Your task to perform on an android device: What's the weather going to be tomorrow? Image 0: 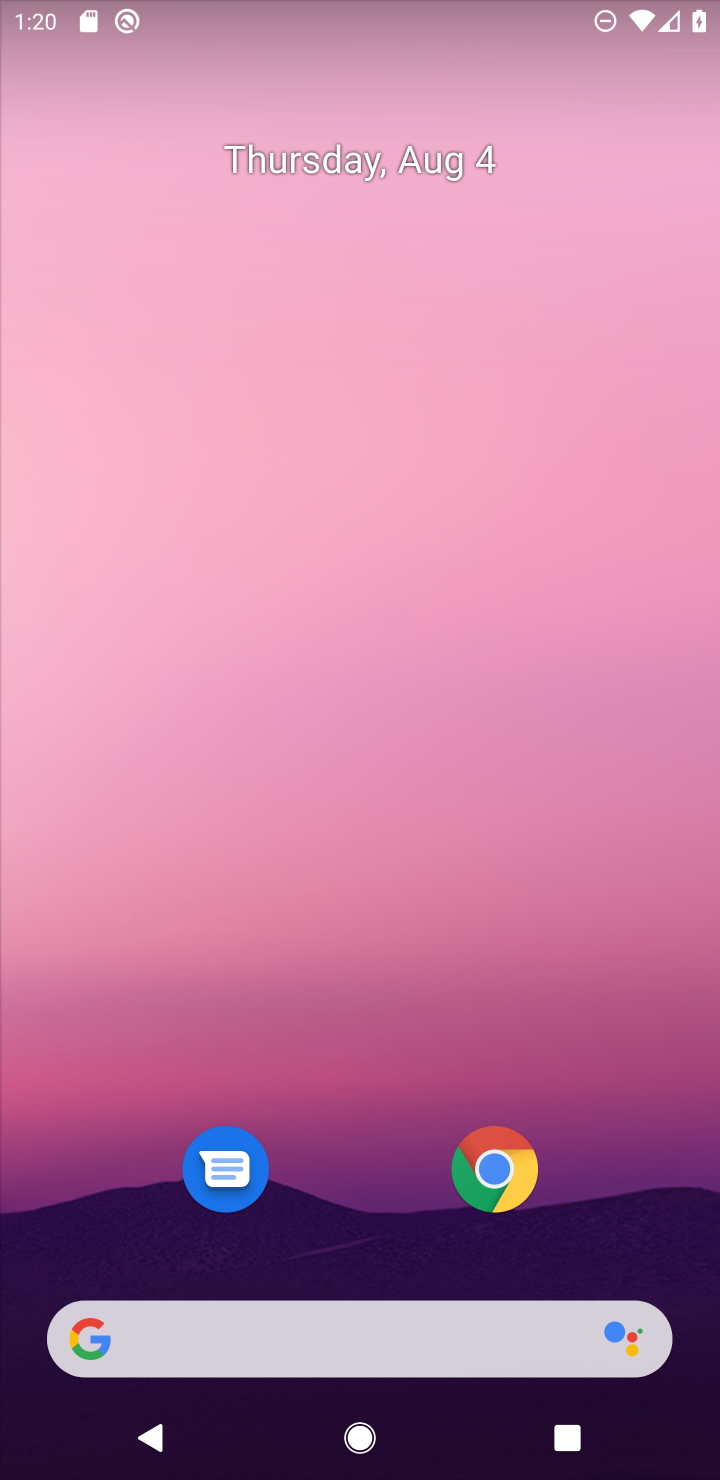
Step 0: drag from (369, 1257) to (342, 4)
Your task to perform on an android device: What's the weather going to be tomorrow? Image 1: 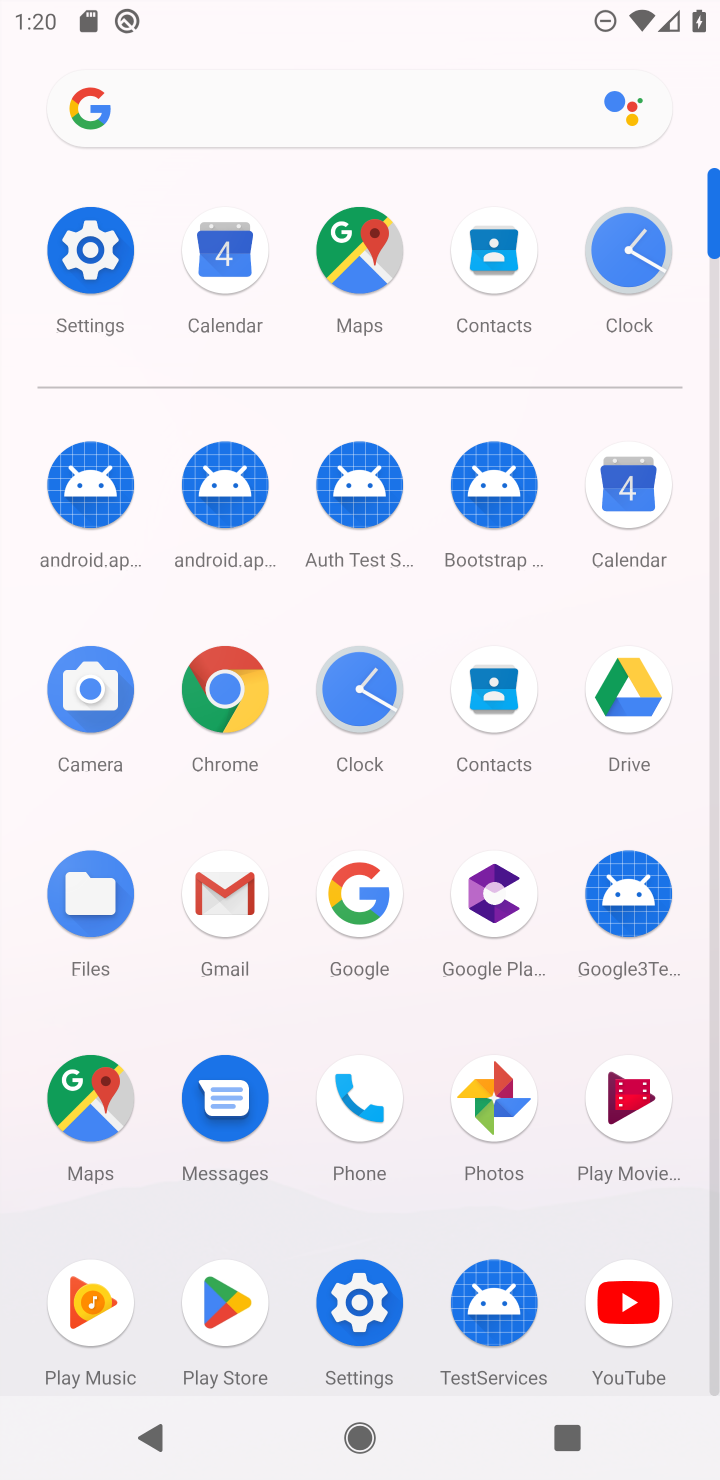
Step 1: click (236, 118)
Your task to perform on an android device: What's the weather going to be tomorrow? Image 2: 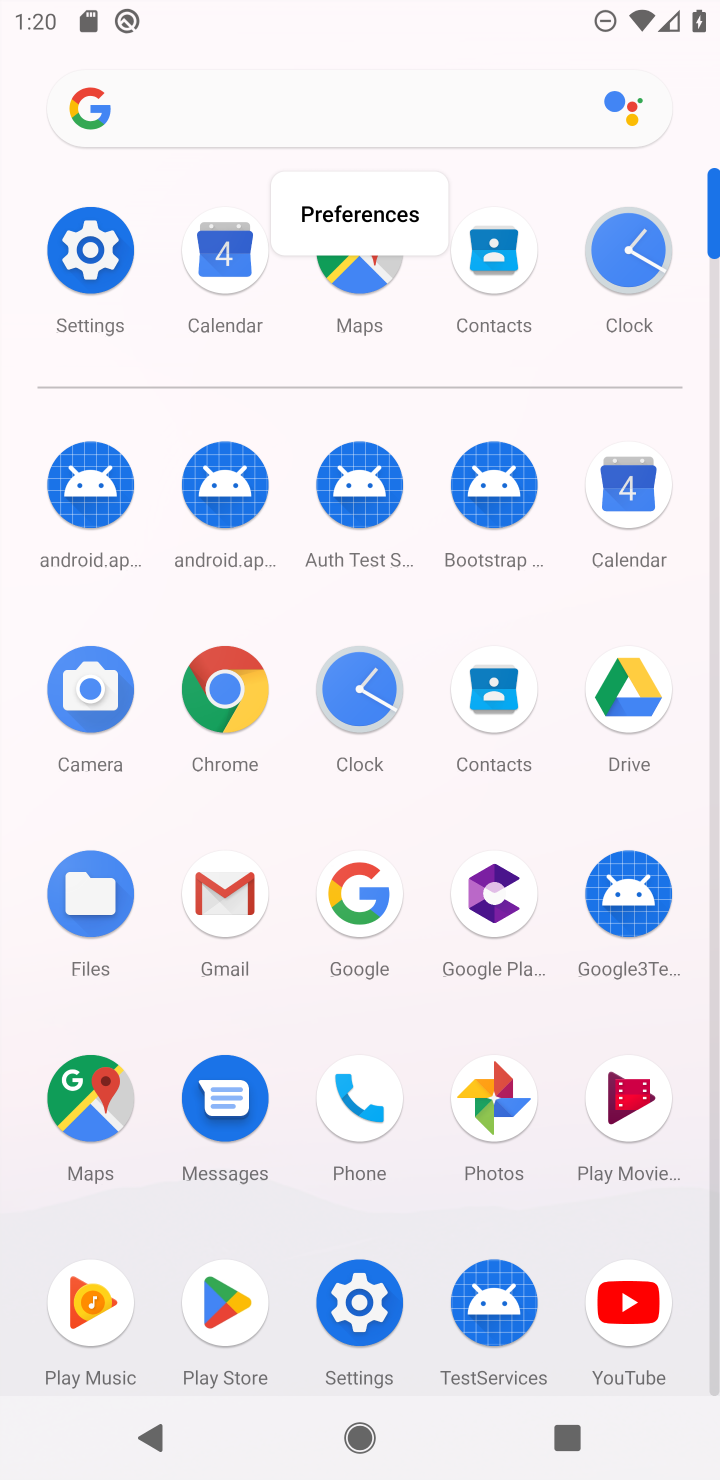
Step 2: click (243, 92)
Your task to perform on an android device: What's the weather going to be tomorrow? Image 3: 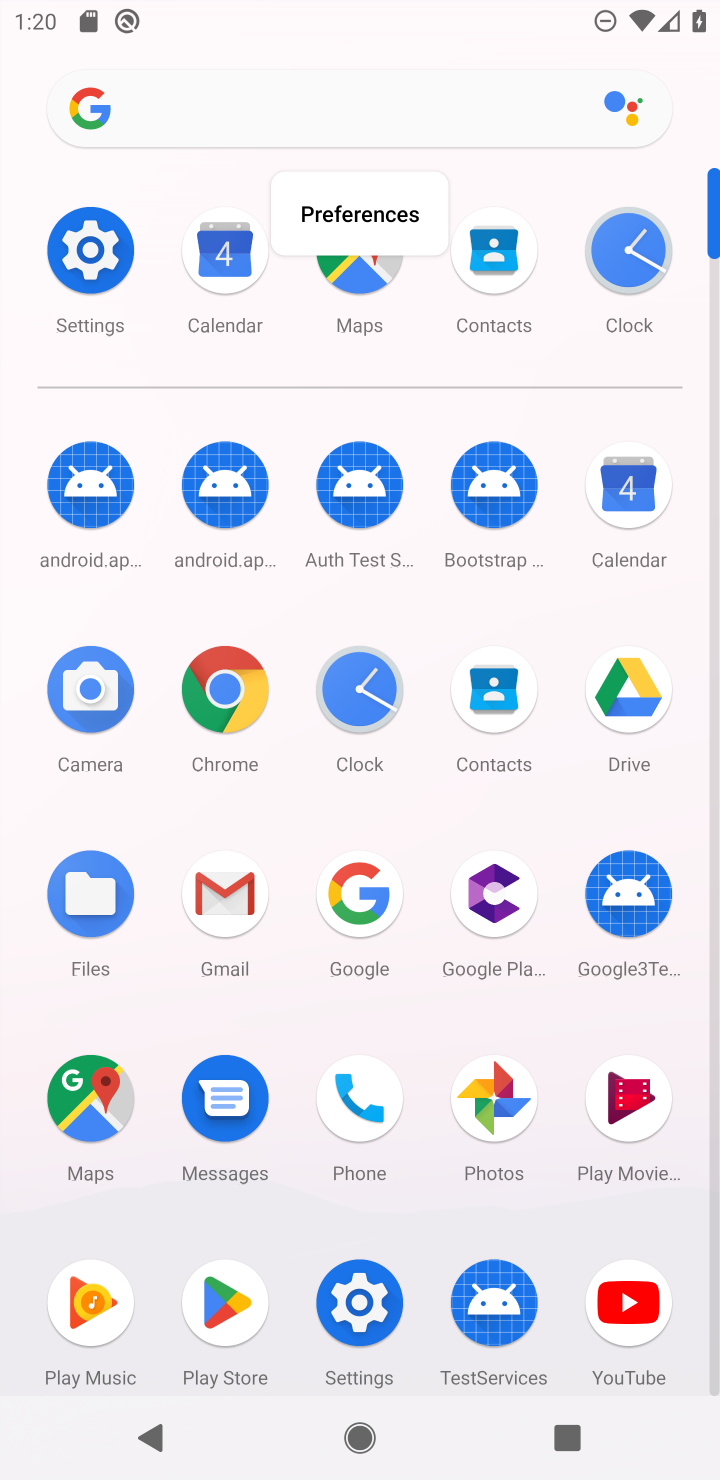
Step 3: click (243, 92)
Your task to perform on an android device: What's the weather going to be tomorrow? Image 4: 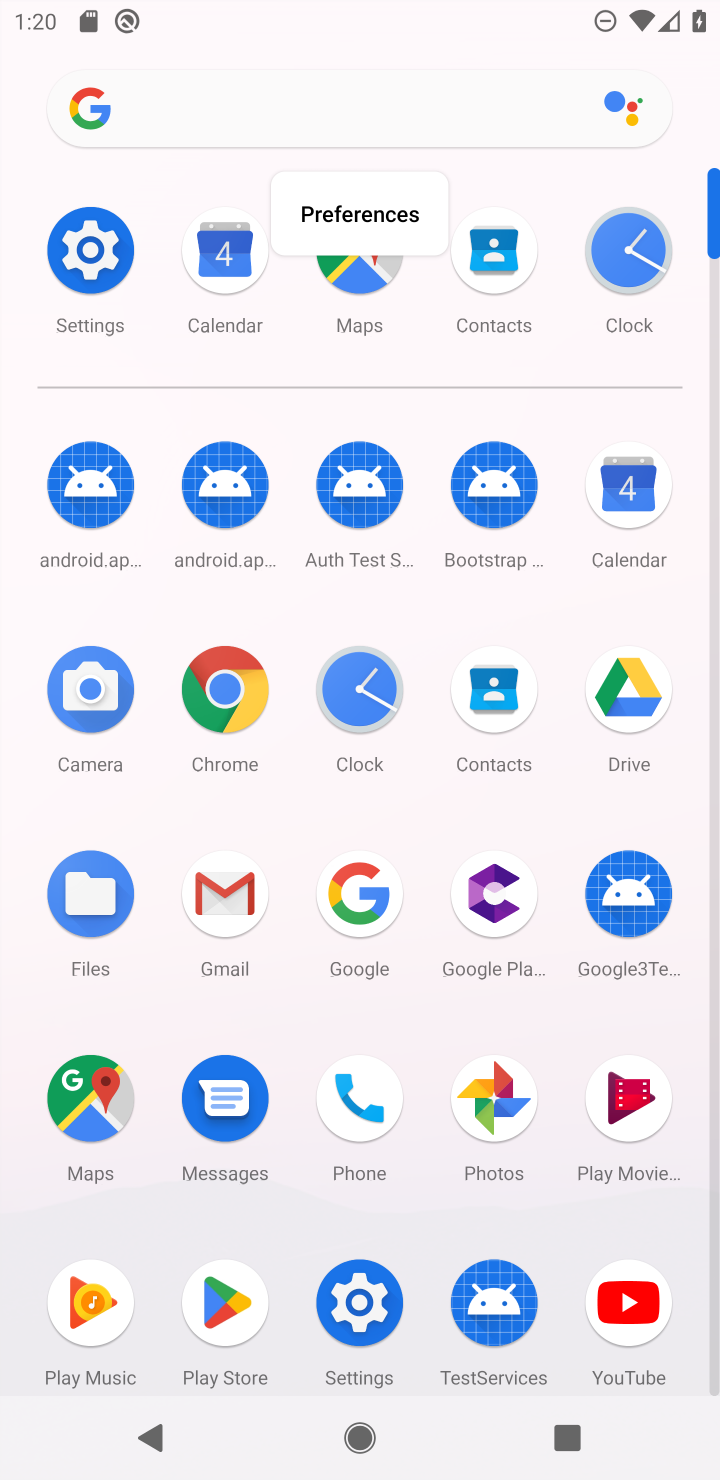
Step 4: click (173, 107)
Your task to perform on an android device: What's the weather going to be tomorrow? Image 5: 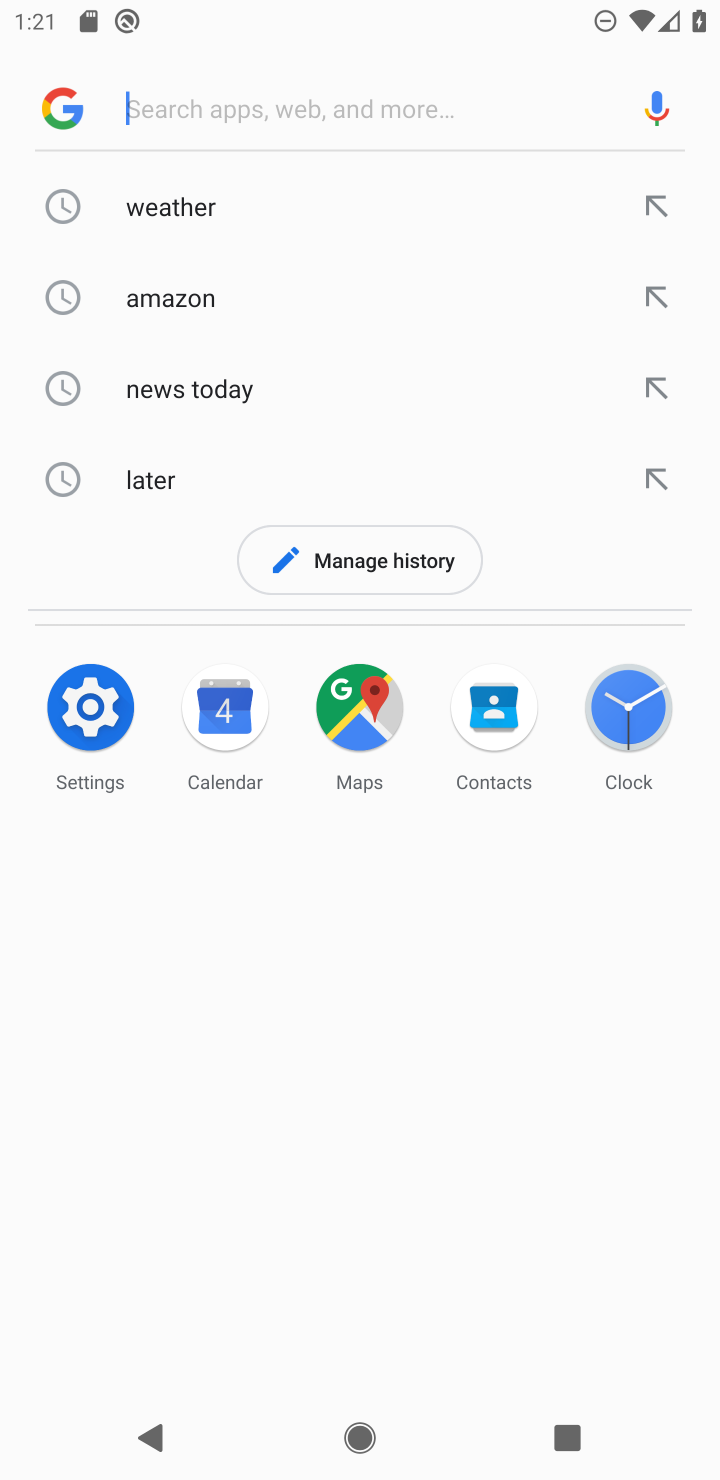
Step 5: click (143, 203)
Your task to perform on an android device: What's the weather going to be tomorrow? Image 6: 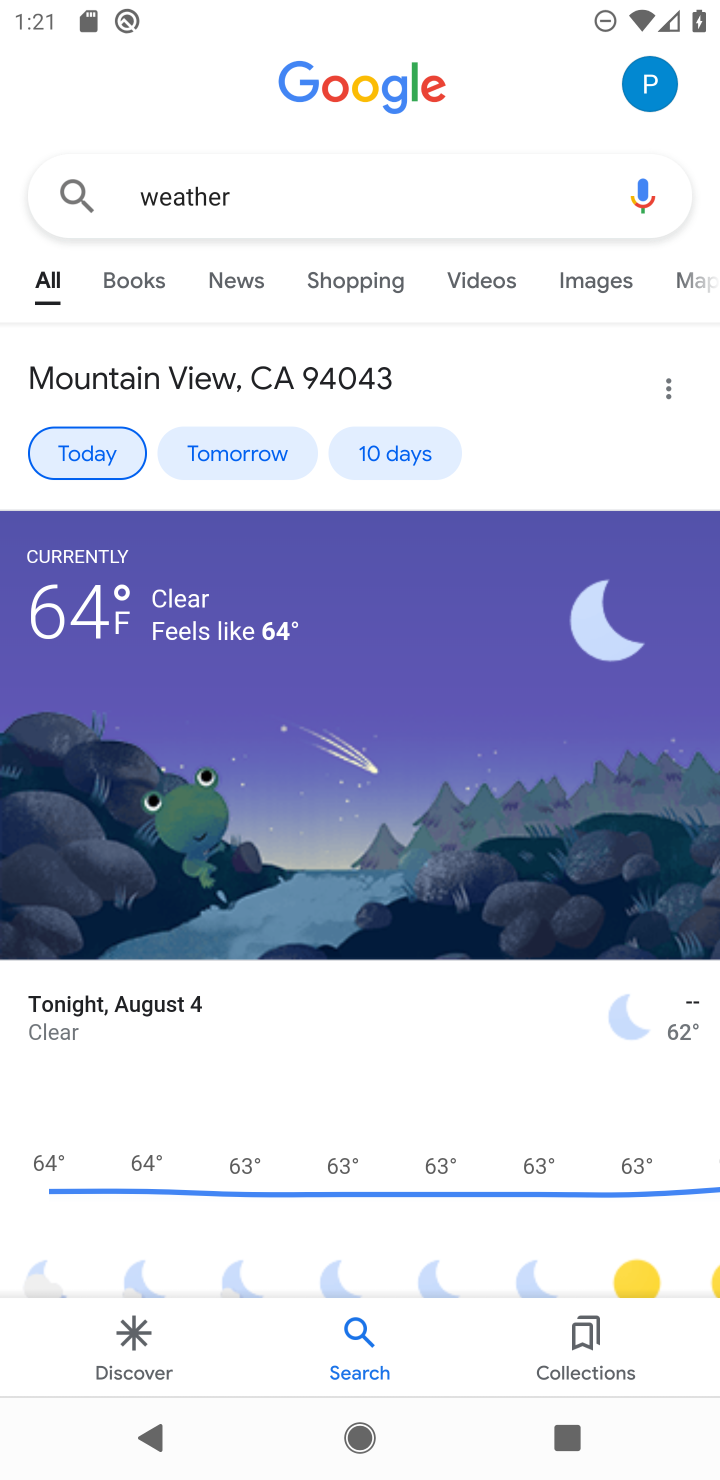
Step 6: click (257, 460)
Your task to perform on an android device: What's the weather going to be tomorrow? Image 7: 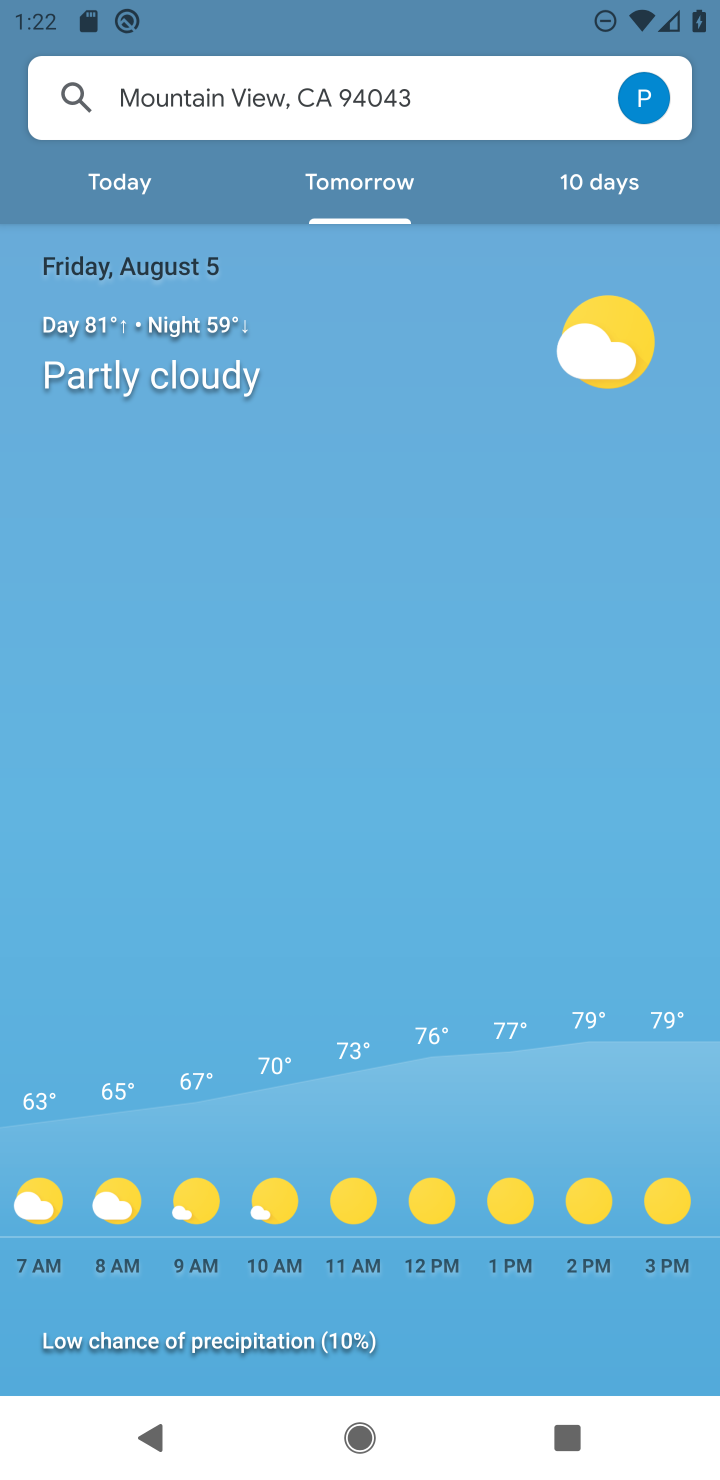
Step 7: task complete